Your task to perform on an android device: Go to Google Image 0: 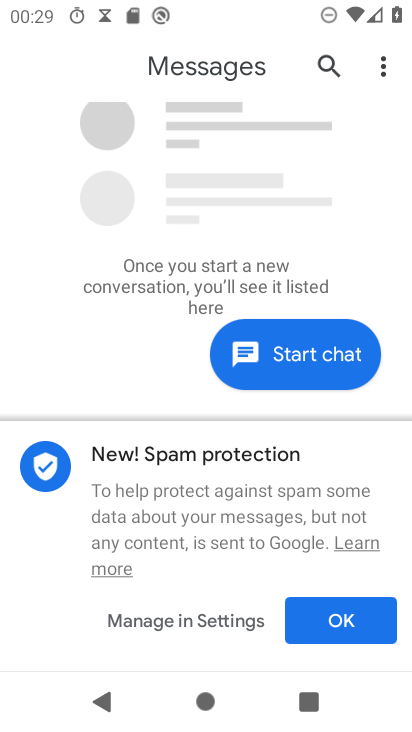
Step 0: press home button
Your task to perform on an android device: Go to Google Image 1: 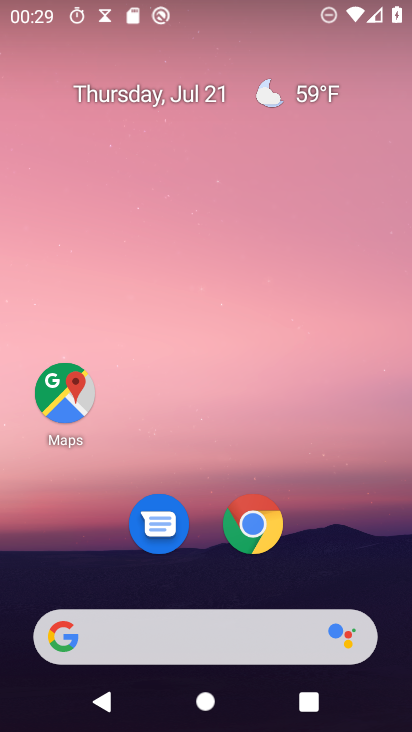
Step 1: drag from (204, 627) to (284, 19)
Your task to perform on an android device: Go to Google Image 2: 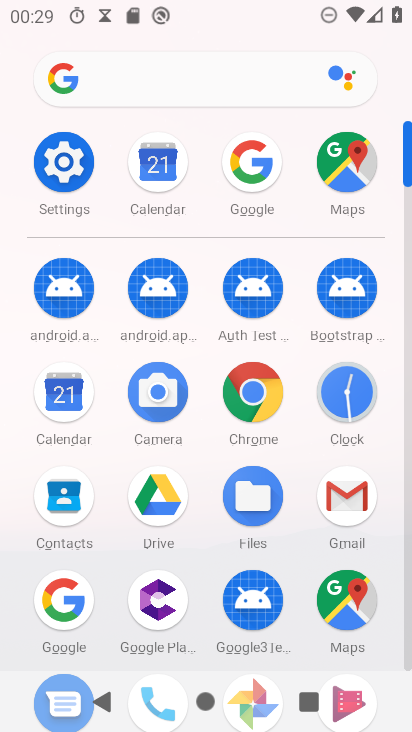
Step 2: click (53, 594)
Your task to perform on an android device: Go to Google Image 3: 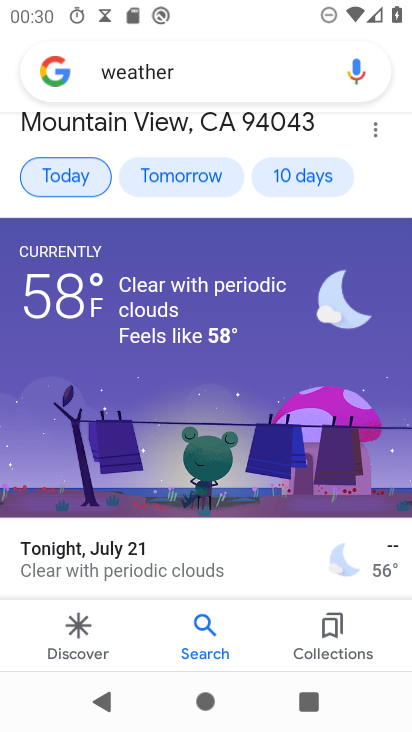
Step 3: task complete